Your task to perform on an android device: add a label to a message in the gmail app Image 0: 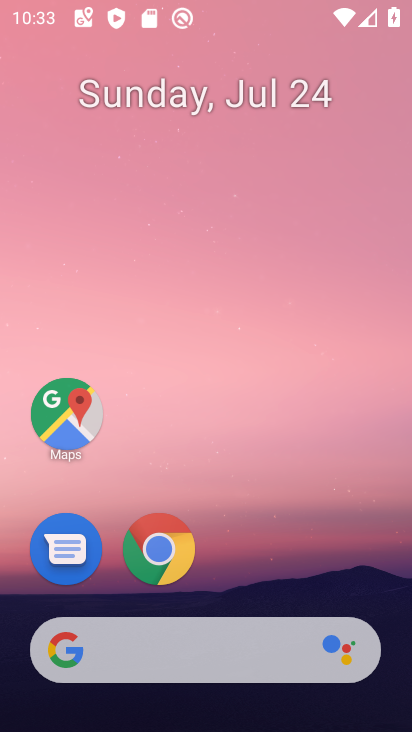
Step 0: drag from (341, 167) to (398, 135)
Your task to perform on an android device: add a label to a message in the gmail app Image 1: 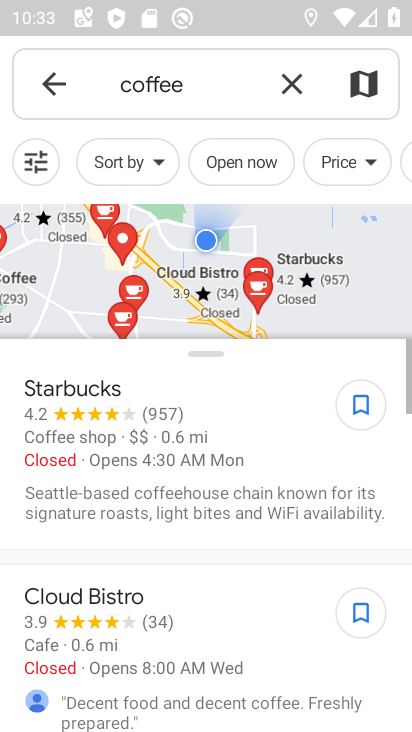
Step 1: press back button
Your task to perform on an android device: add a label to a message in the gmail app Image 2: 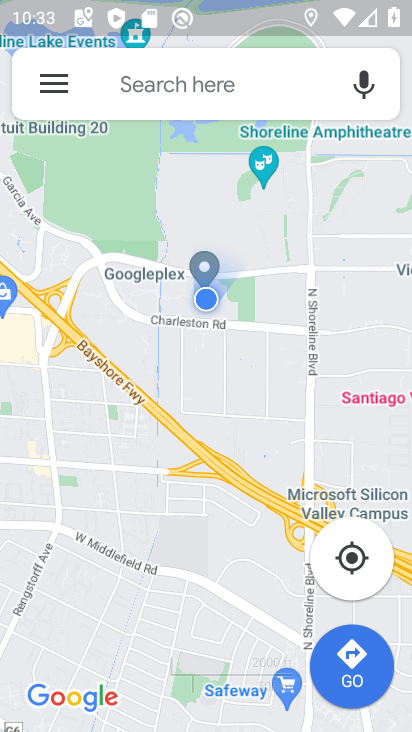
Step 2: press back button
Your task to perform on an android device: add a label to a message in the gmail app Image 3: 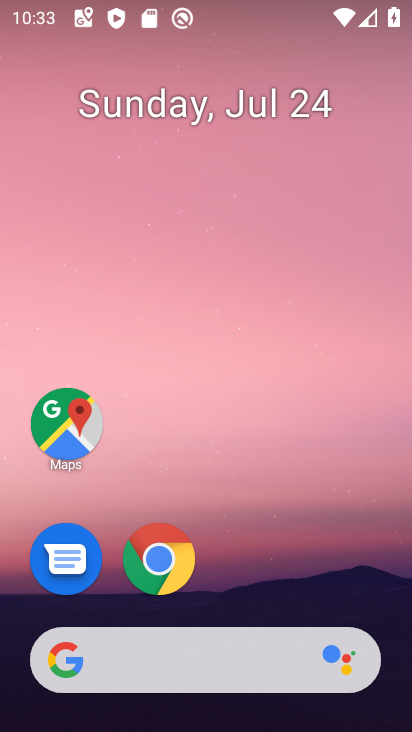
Step 3: drag from (242, 570) to (307, 16)
Your task to perform on an android device: add a label to a message in the gmail app Image 4: 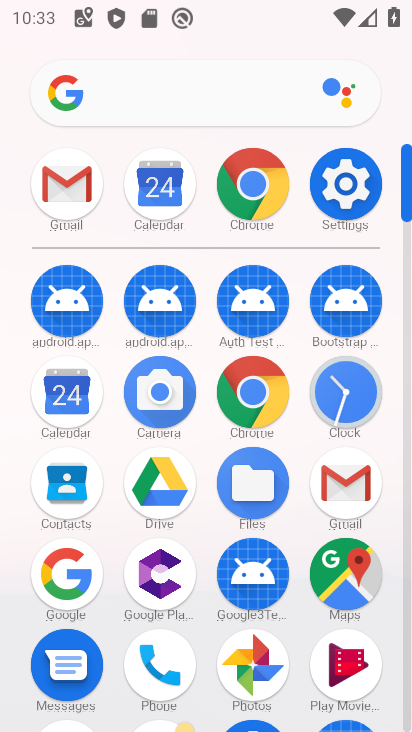
Step 4: click (59, 189)
Your task to perform on an android device: add a label to a message in the gmail app Image 5: 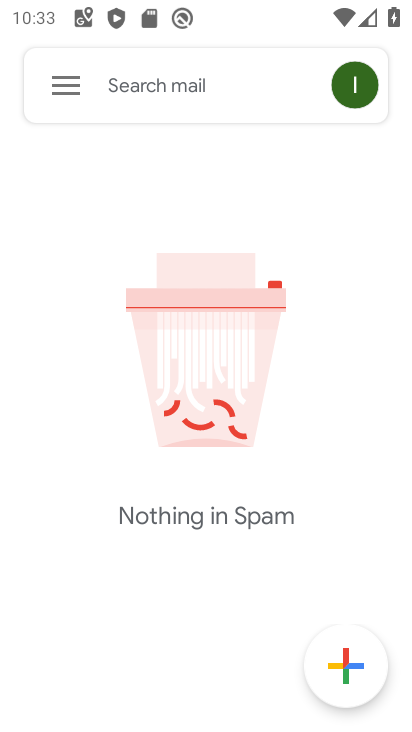
Step 5: click (57, 66)
Your task to perform on an android device: add a label to a message in the gmail app Image 6: 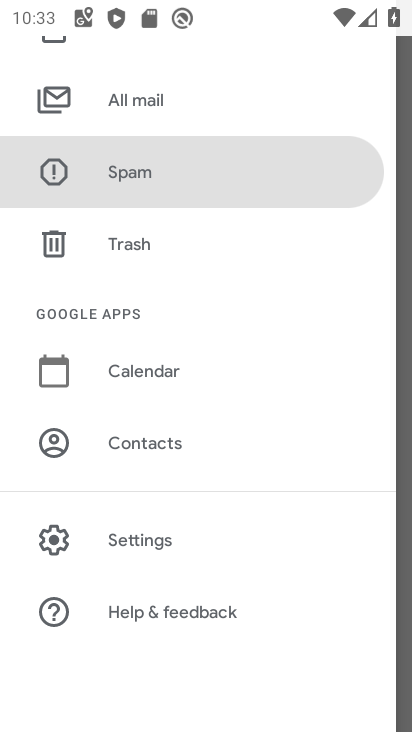
Step 6: click (124, 103)
Your task to perform on an android device: add a label to a message in the gmail app Image 7: 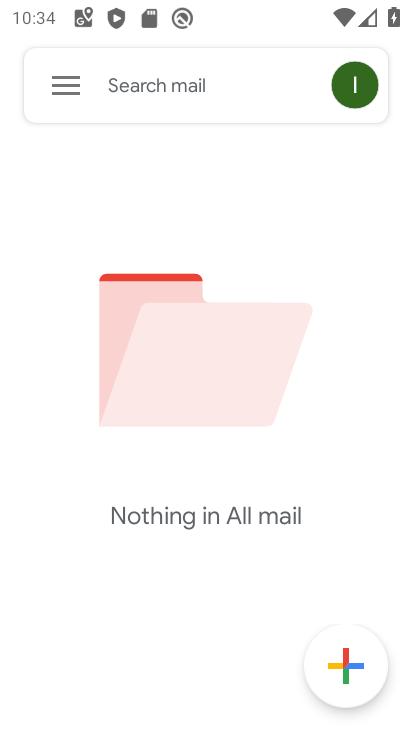
Step 7: task complete